Your task to perform on an android device: When is my next appointment? Image 0: 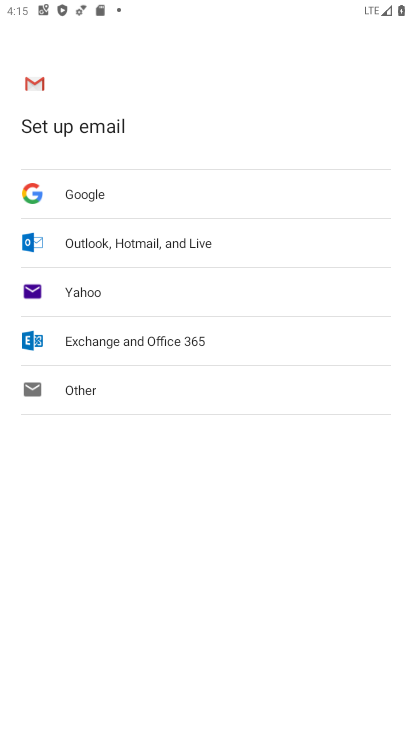
Step 0: press back button
Your task to perform on an android device: When is my next appointment? Image 1: 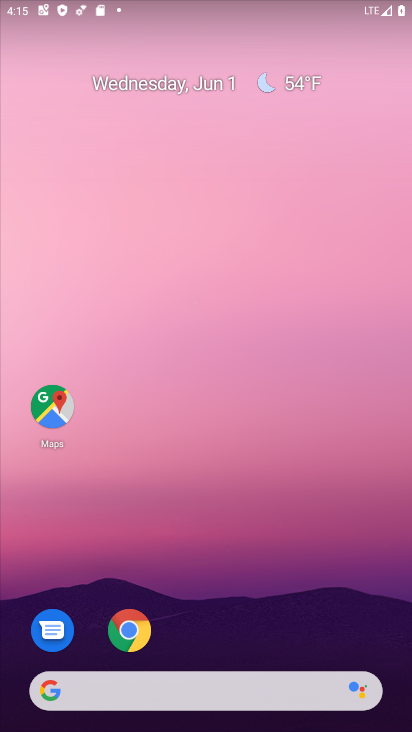
Step 1: drag from (304, 567) to (242, 22)
Your task to perform on an android device: When is my next appointment? Image 2: 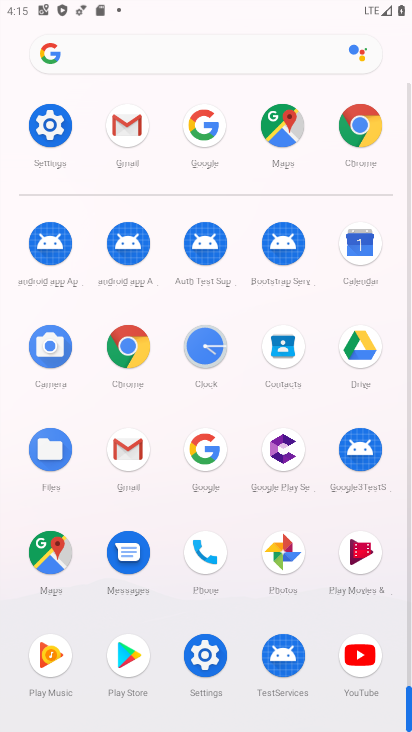
Step 2: drag from (7, 536) to (33, 142)
Your task to perform on an android device: When is my next appointment? Image 3: 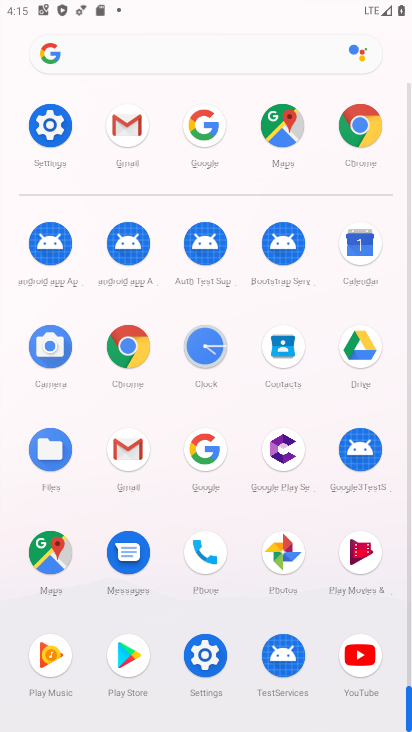
Step 3: drag from (15, 595) to (21, 335)
Your task to perform on an android device: When is my next appointment? Image 4: 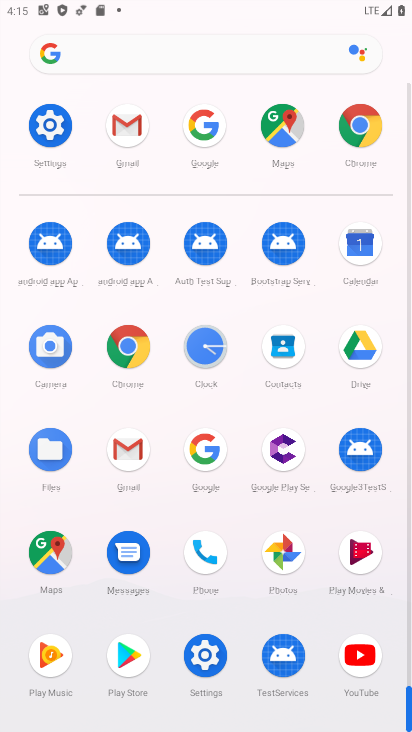
Step 4: click (362, 238)
Your task to perform on an android device: When is my next appointment? Image 5: 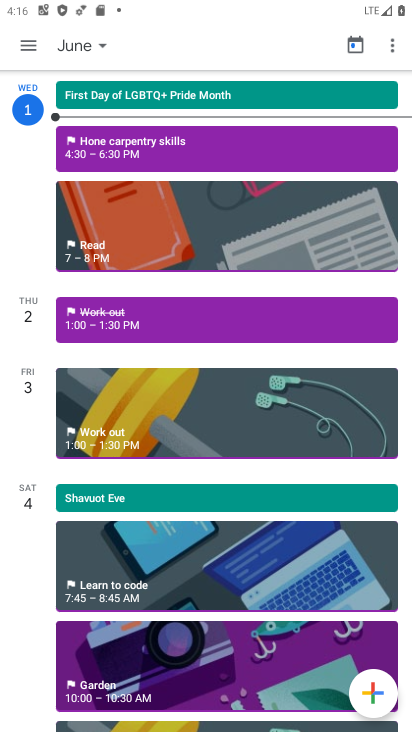
Step 5: click (26, 47)
Your task to perform on an android device: When is my next appointment? Image 6: 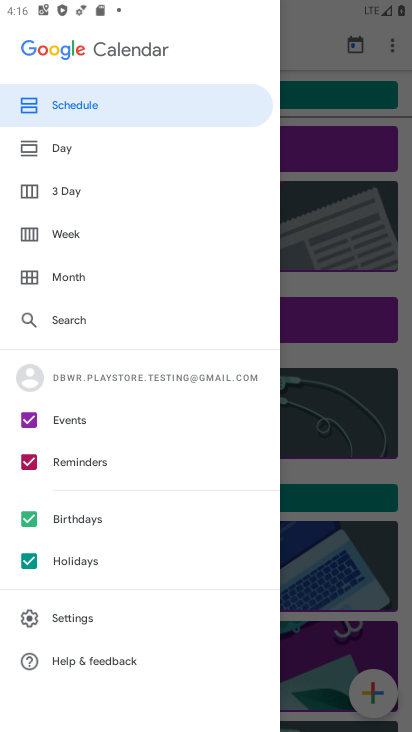
Step 6: click (88, 100)
Your task to perform on an android device: When is my next appointment? Image 7: 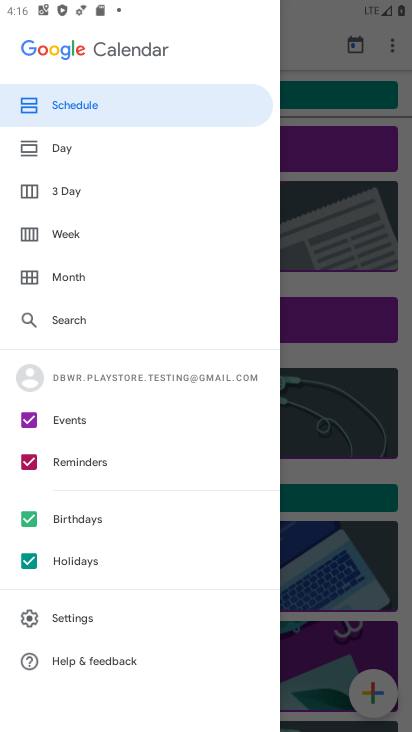
Step 7: click (103, 100)
Your task to perform on an android device: When is my next appointment? Image 8: 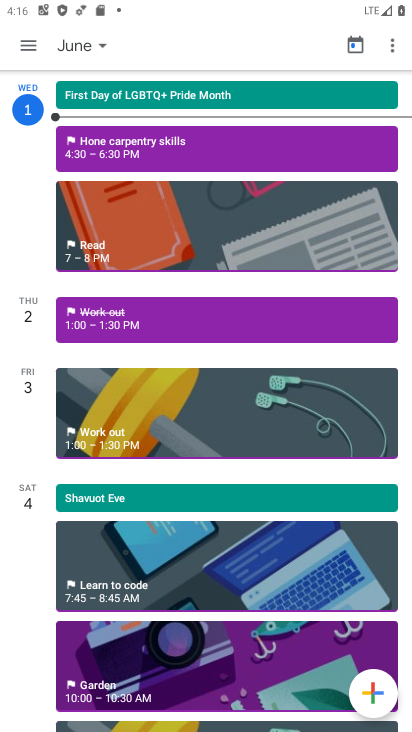
Step 8: click (322, 147)
Your task to perform on an android device: When is my next appointment? Image 9: 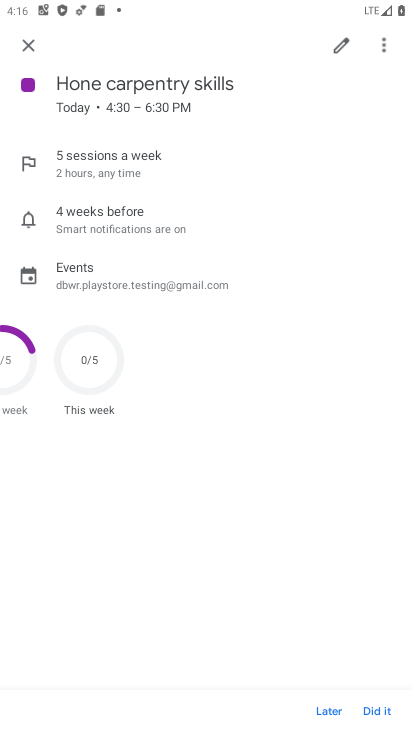
Step 9: click (31, 44)
Your task to perform on an android device: When is my next appointment? Image 10: 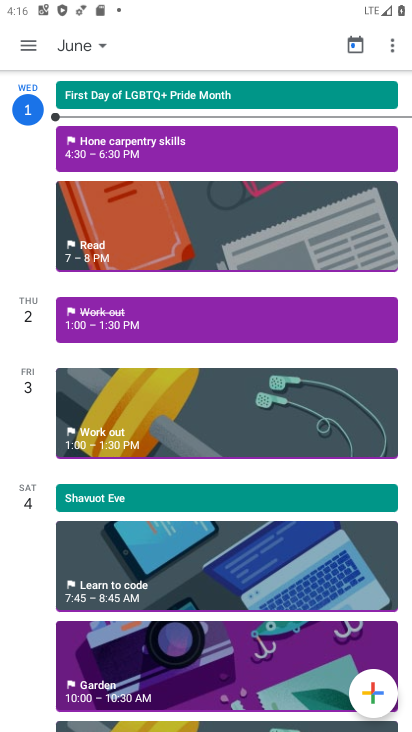
Step 10: task complete